Your task to perform on an android device: delete the emails in spam in the gmail app Image 0: 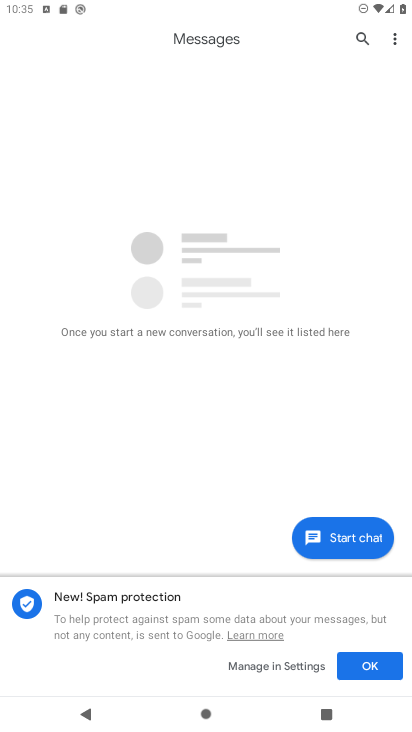
Step 0: press home button
Your task to perform on an android device: delete the emails in spam in the gmail app Image 1: 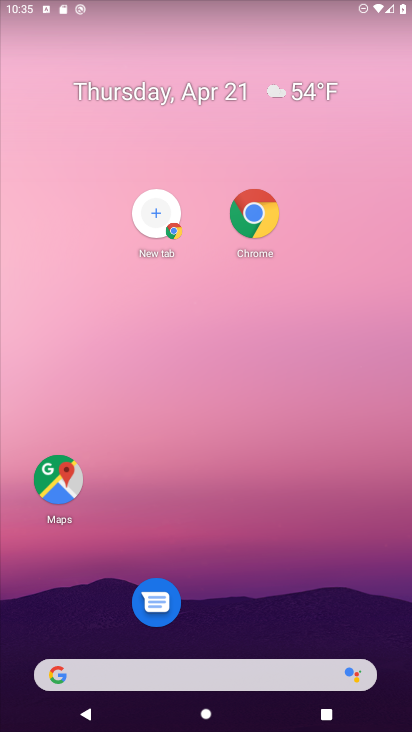
Step 1: drag from (242, 623) to (229, 37)
Your task to perform on an android device: delete the emails in spam in the gmail app Image 2: 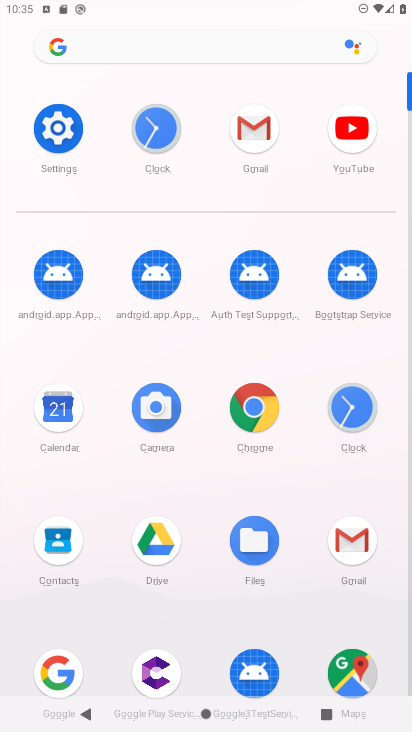
Step 2: click (359, 547)
Your task to perform on an android device: delete the emails in spam in the gmail app Image 3: 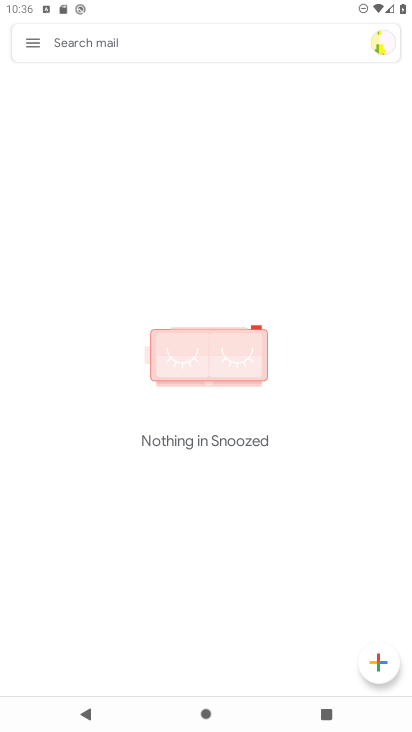
Step 3: click (27, 55)
Your task to perform on an android device: delete the emails in spam in the gmail app Image 4: 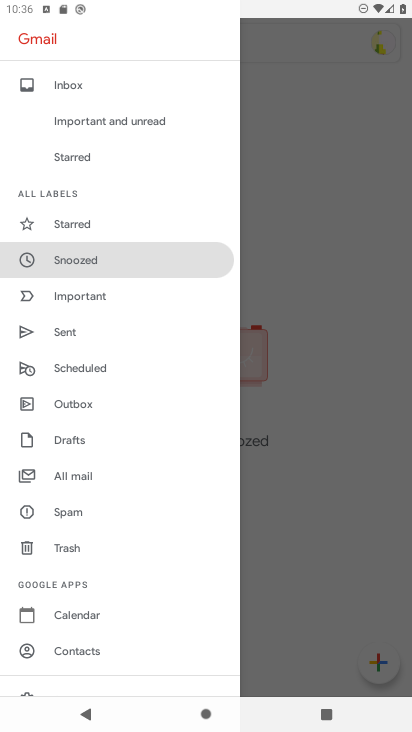
Step 4: click (86, 505)
Your task to perform on an android device: delete the emails in spam in the gmail app Image 5: 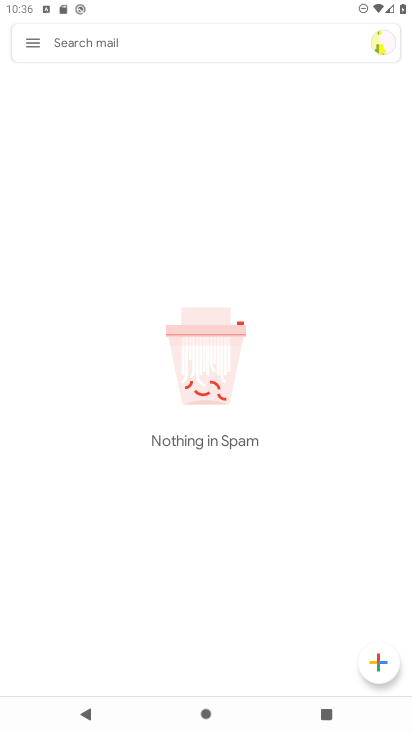
Step 5: task complete